Your task to perform on an android device: When is my next appointment? Image 0: 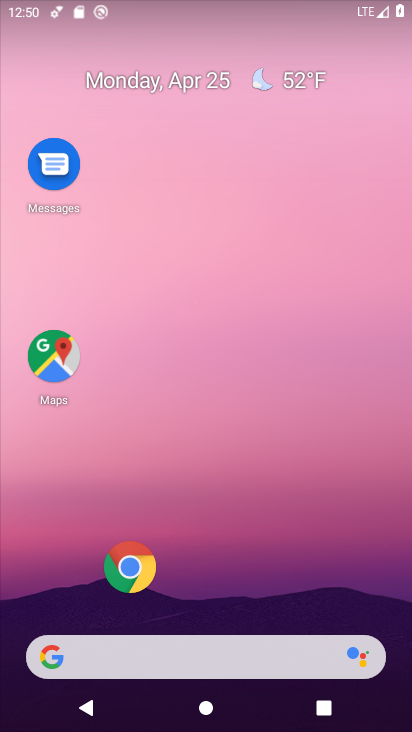
Step 0: drag from (275, 541) to (317, 5)
Your task to perform on an android device: When is my next appointment? Image 1: 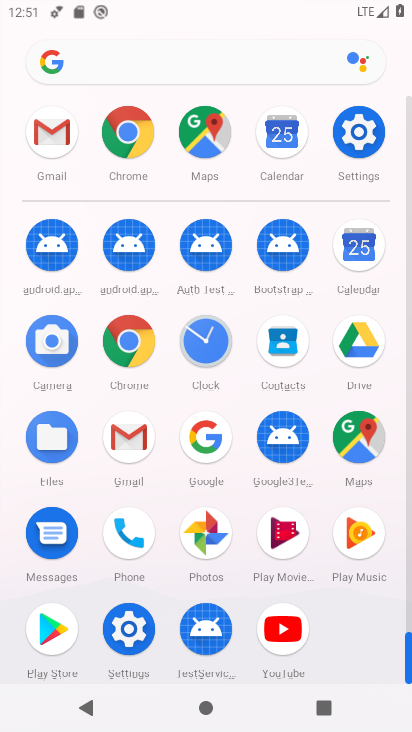
Step 1: click (367, 285)
Your task to perform on an android device: When is my next appointment? Image 2: 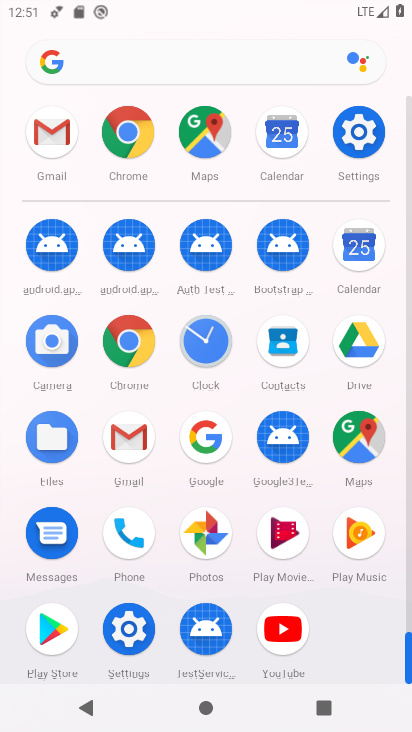
Step 2: click (356, 271)
Your task to perform on an android device: When is my next appointment? Image 3: 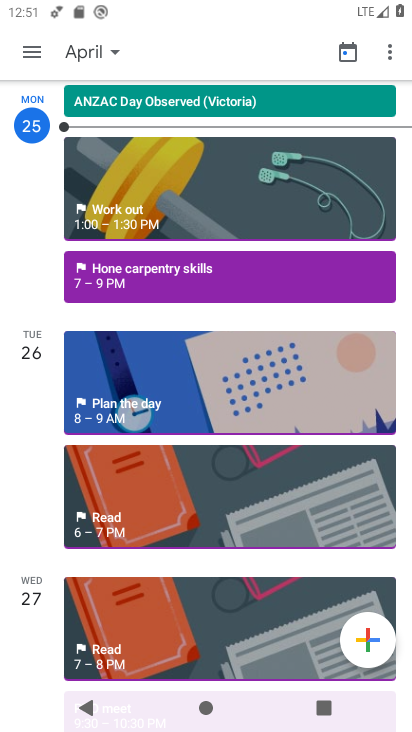
Step 3: task complete